Your task to perform on an android device: toggle sleep mode Image 0: 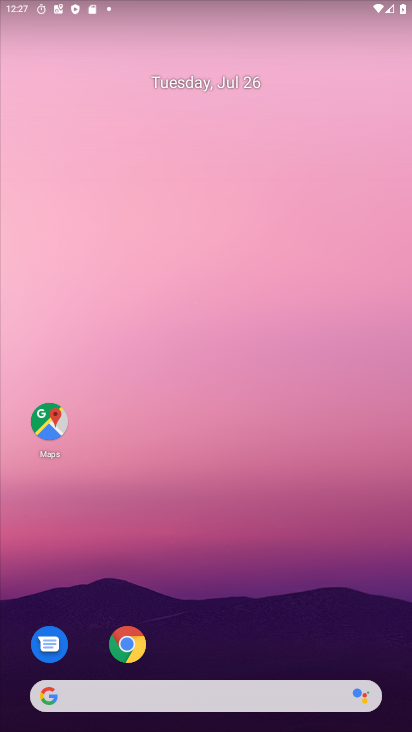
Step 0: drag from (325, 583) to (270, 6)
Your task to perform on an android device: toggle sleep mode Image 1: 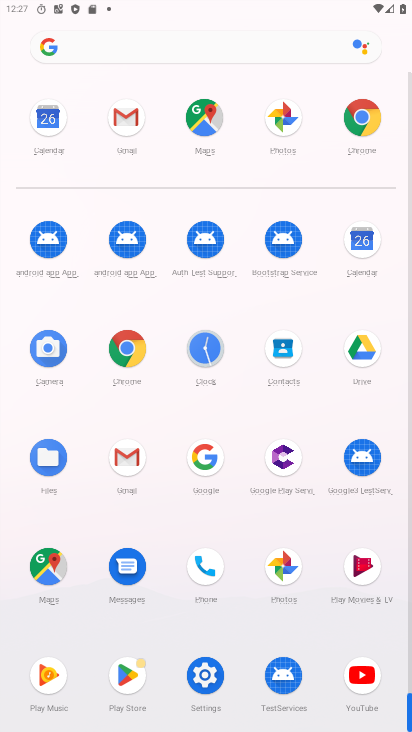
Step 1: click (201, 671)
Your task to perform on an android device: toggle sleep mode Image 2: 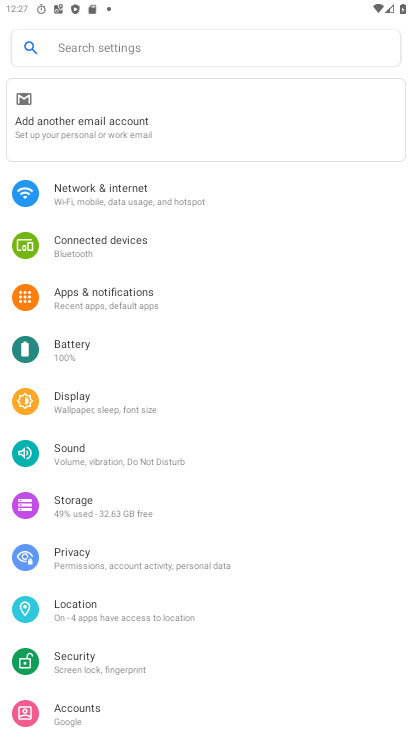
Step 2: click (94, 415)
Your task to perform on an android device: toggle sleep mode Image 3: 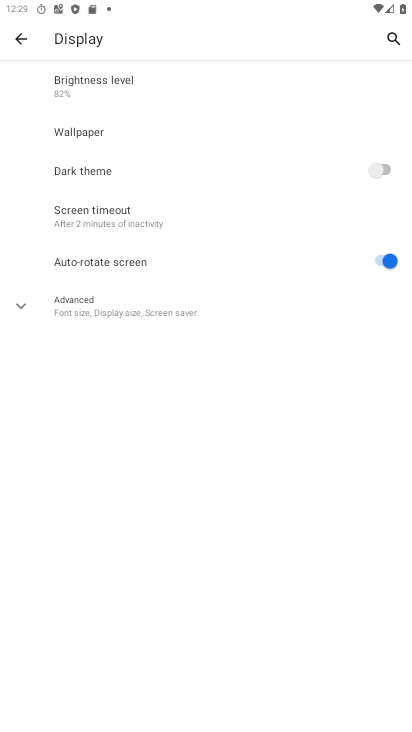
Step 3: task complete